Your task to perform on an android device: What's on my calendar tomorrow? Image 0: 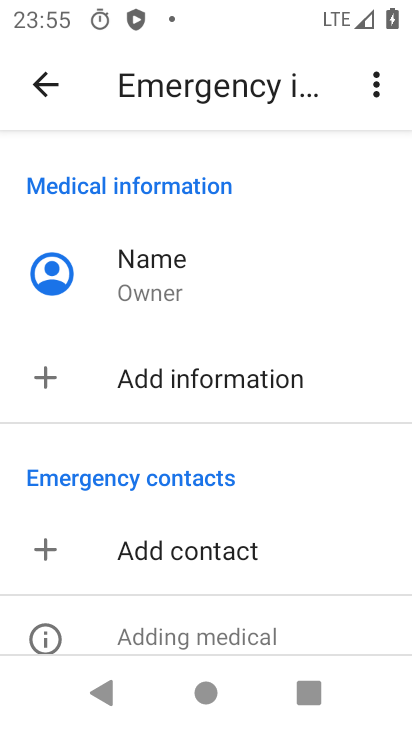
Step 0: press home button
Your task to perform on an android device: What's on my calendar tomorrow? Image 1: 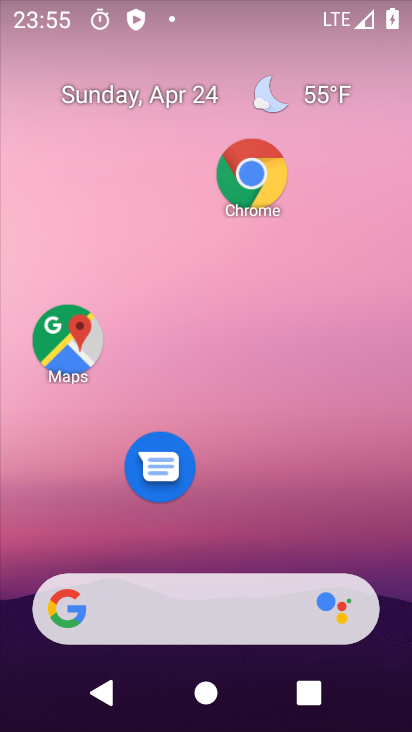
Step 1: drag from (228, 530) to (206, 68)
Your task to perform on an android device: What's on my calendar tomorrow? Image 2: 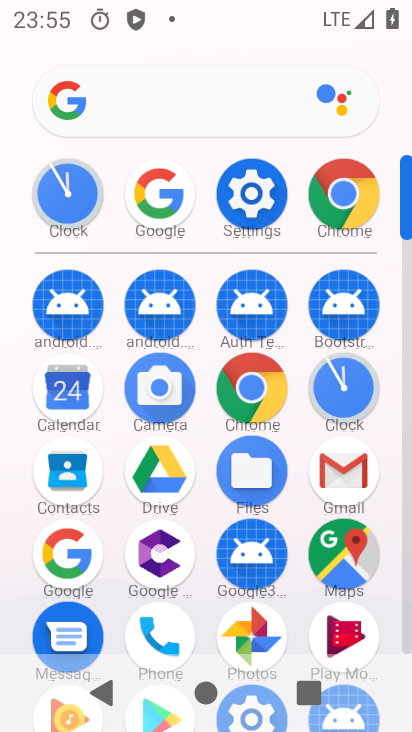
Step 2: click (80, 399)
Your task to perform on an android device: What's on my calendar tomorrow? Image 3: 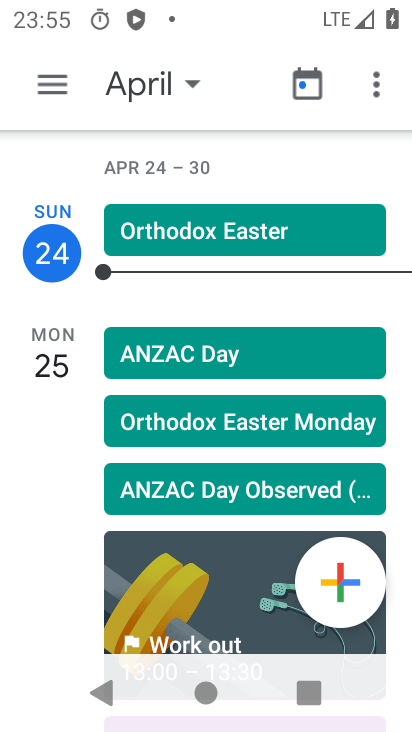
Step 3: click (187, 88)
Your task to perform on an android device: What's on my calendar tomorrow? Image 4: 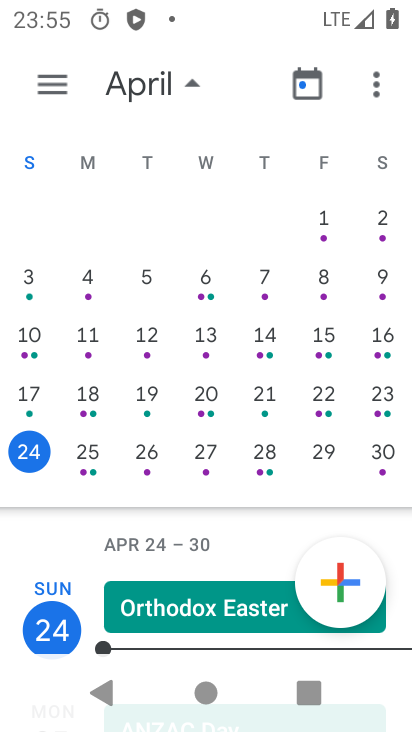
Step 4: drag from (360, 482) to (255, 481)
Your task to perform on an android device: What's on my calendar tomorrow? Image 5: 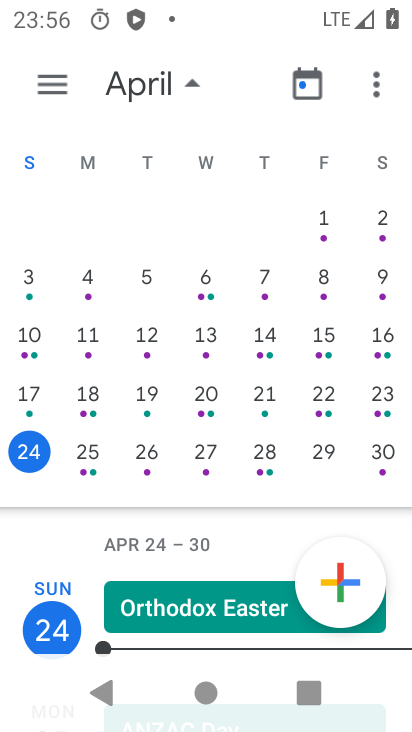
Step 5: click (91, 457)
Your task to perform on an android device: What's on my calendar tomorrow? Image 6: 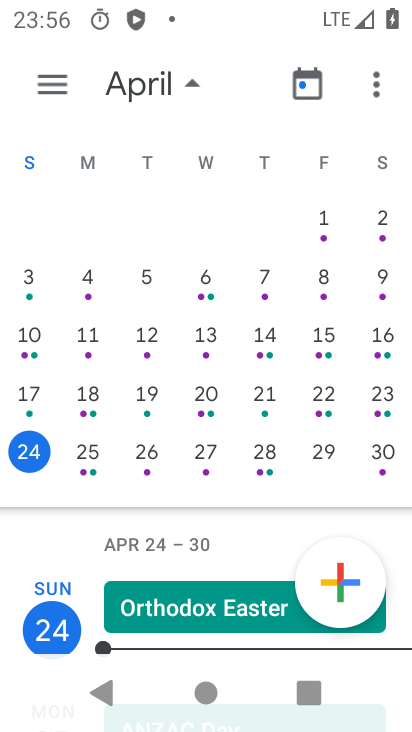
Step 6: click (95, 452)
Your task to perform on an android device: What's on my calendar tomorrow? Image 7: 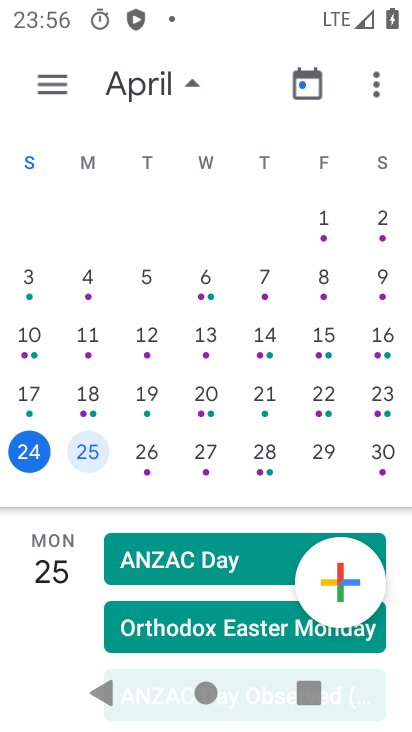
Step 7: task complete